Your task to perform on an android device: Play the last video I watched on Youtube Image 0: 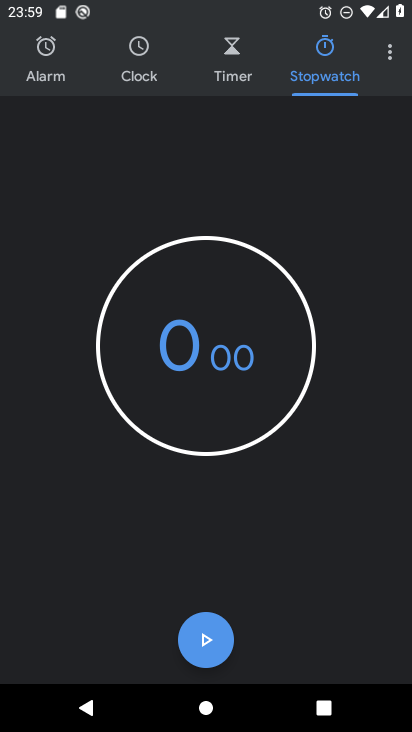
Step 0: press home button
Your task to perform on an android device: Play the last video I watched on Youtube Image 1: 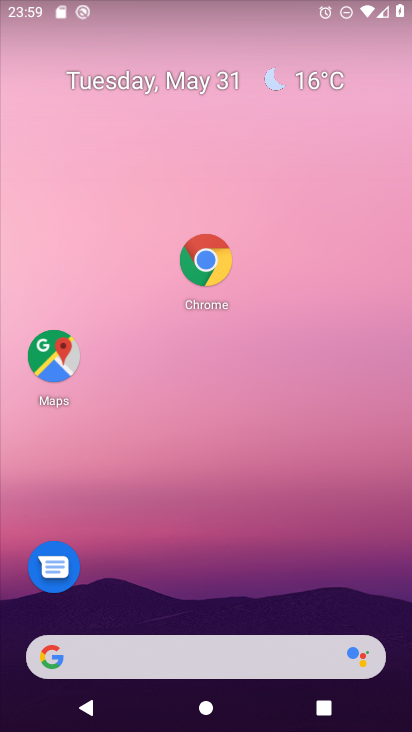
Step 1: drag from (217, 637) to (191, 238)
Your task to perform on an android device: Play the last video I watched on Youtube Image 2: 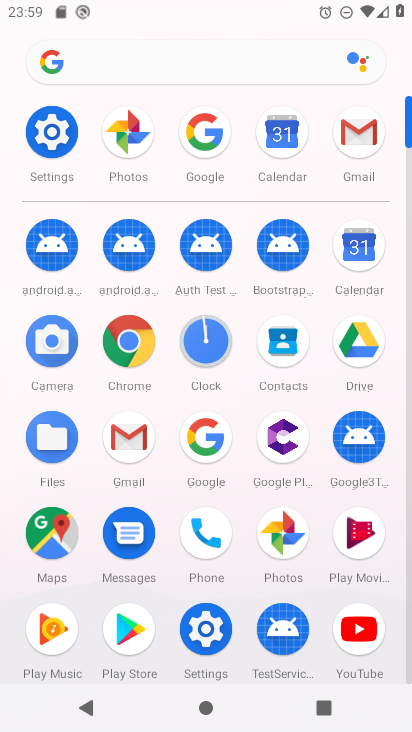
Step 2: click (369, 631)
Your task to perform on an android device: Play the last video I watched on Youtube Image 3: 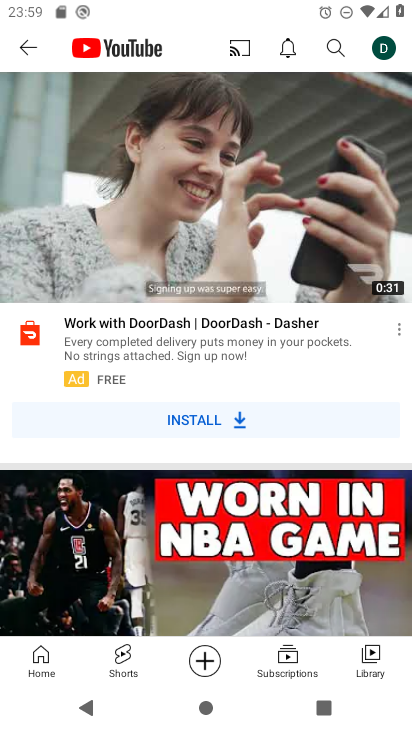
Step 3: drag from (373, 655) to (294, 655)
Your task to perform on an android device: Play the last video I watched on Youtube Image 4: 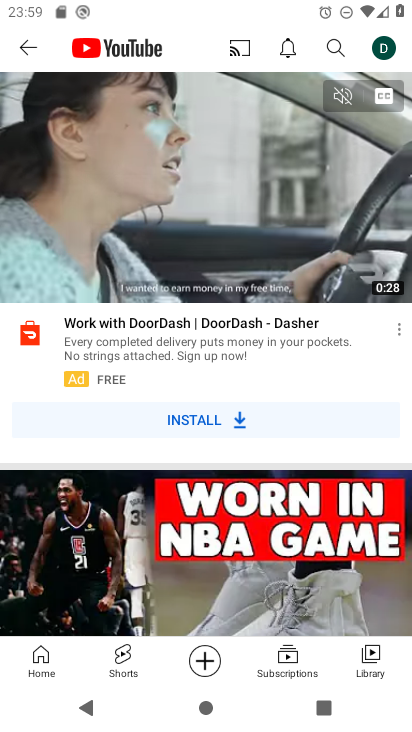
Step 4: click (380, 661)
Your task to perform on an android device: Play the last video I watched on Youtube Image 5: 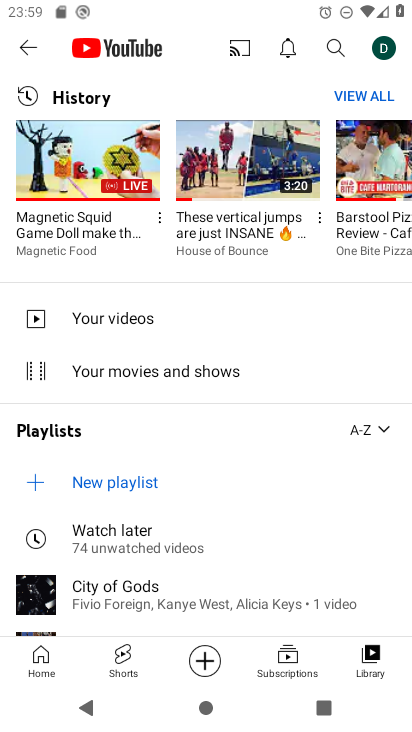
Step 5: click (82, 161)
Your task to perform on an android device: Play the last video I watched on Youtube Image 6: 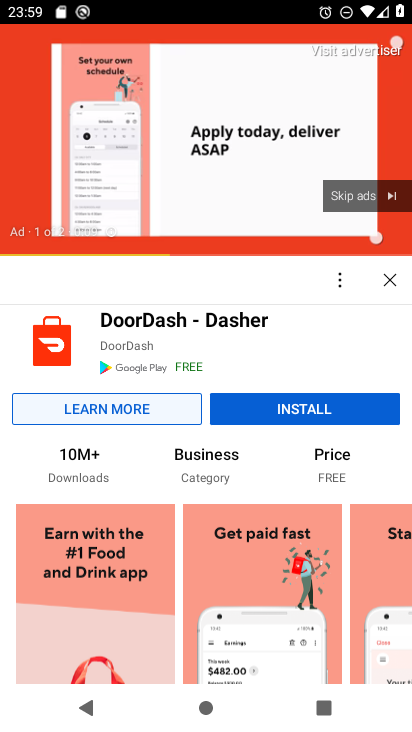
Step 6: task complete